Your task to perform on an android device: Search for sushi restaurants on Maps Image 0: 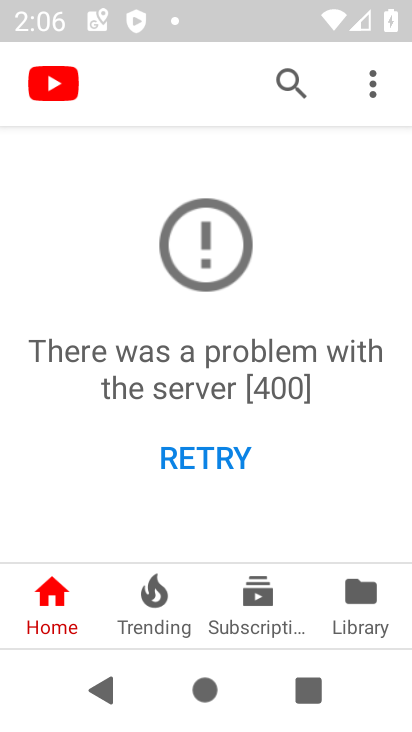
Step 0: press home button
Your task to perform on an android device: Search for sushi restaurants on Maps Image 1: 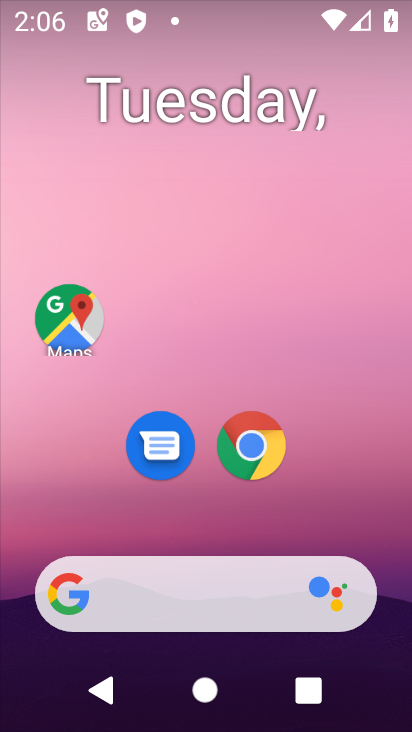
Step 1: click (67, 278)
Your task to perform on an android device: Search for sushi restaurants on Maps Image 2: 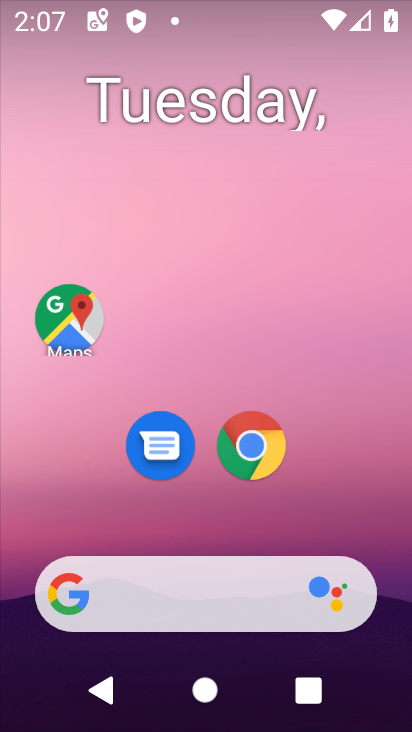
Step 2: click (68, 307)
Your task to perform on an android device: Search for sushi restaurants on Maps Image 3: 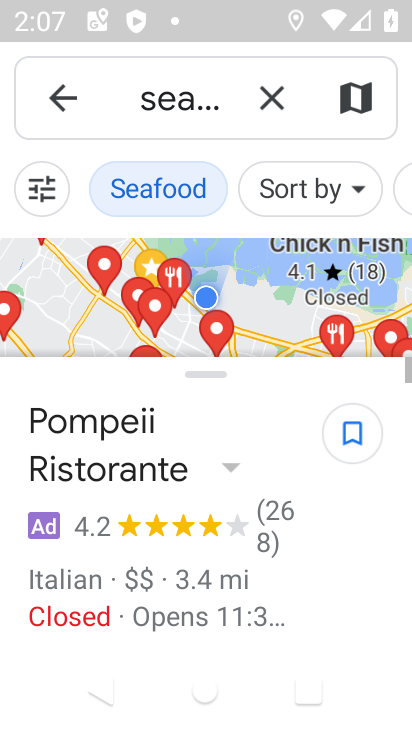
Step 3: click (264, 94)
Your task to perform on an android device: Search for sushi restaurants on Maps Image 4: 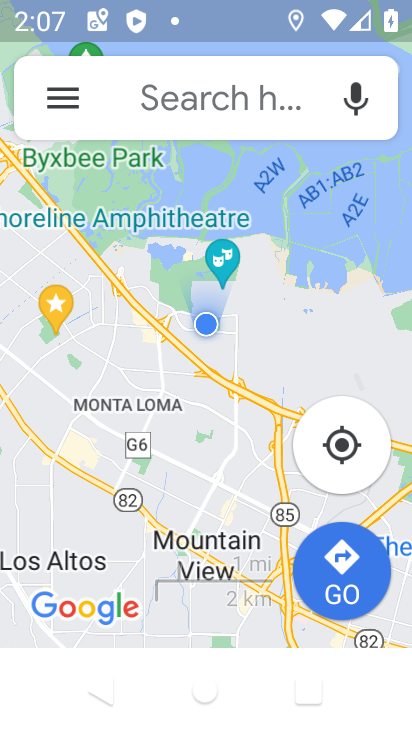
Step 4: click (225, 85)
Your task to perform on an android device: Search for sushi restaurants on Maps Image 5: 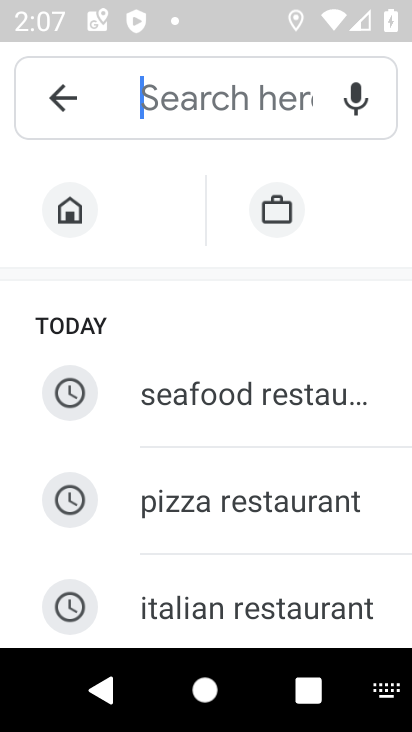
Step 5: type "sushi restaurant"
Your task to perform on an android device: Search for sushi restaurants on Maps Image 6: 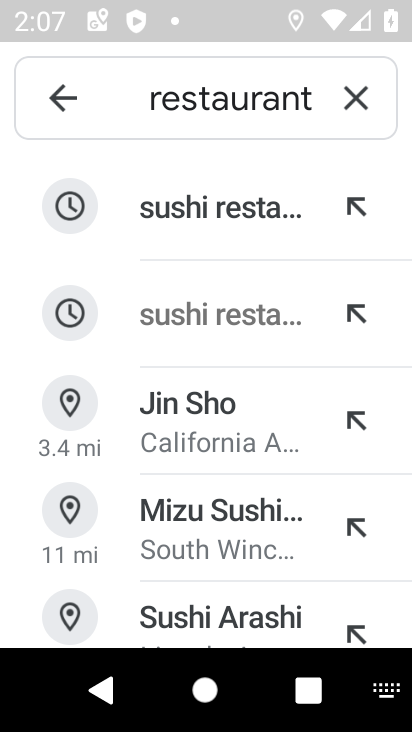
Step 6: click (154, 187)
Your task to perform on an android device: Search for sushi restaurants on Maps Image 7: 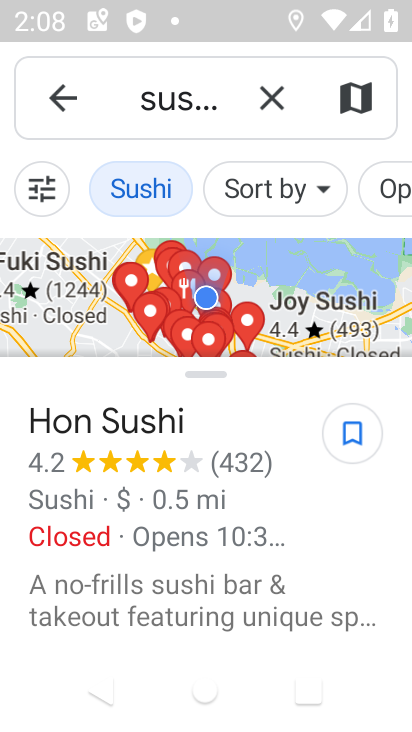
Step 7: task complete